Your task to perform on an android device: When is my next meeting? Image 0: 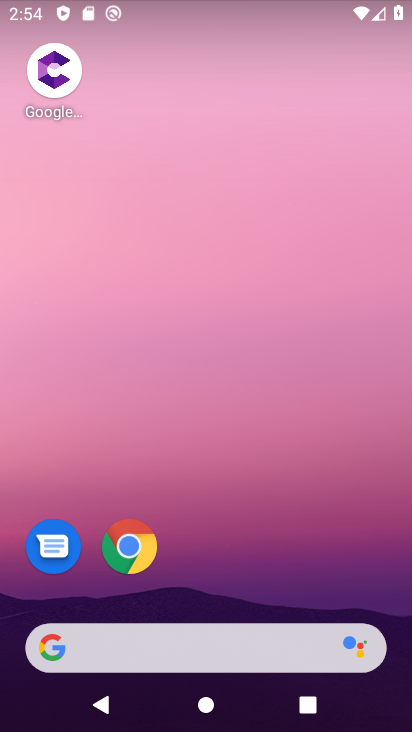
Step 0: drag from (189, 577) to (250, 79)
Your task to perform on an android device: When is my next meeting? Image 1: 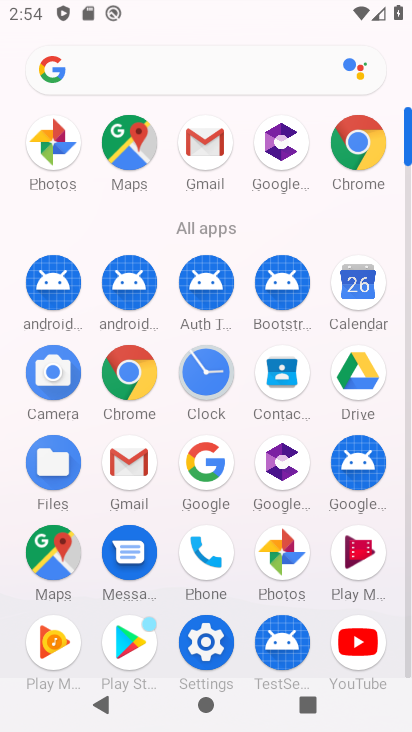
Step 1: click (357, 283)
Your task to perform on an android device: When is my next meeting? Image 2: 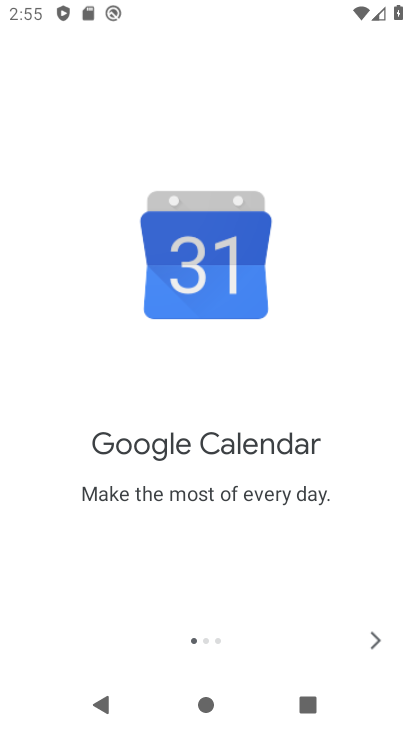
Step 2: click (376, 644)
Your task to perform on an android device: When is my next meeting? Image 3: 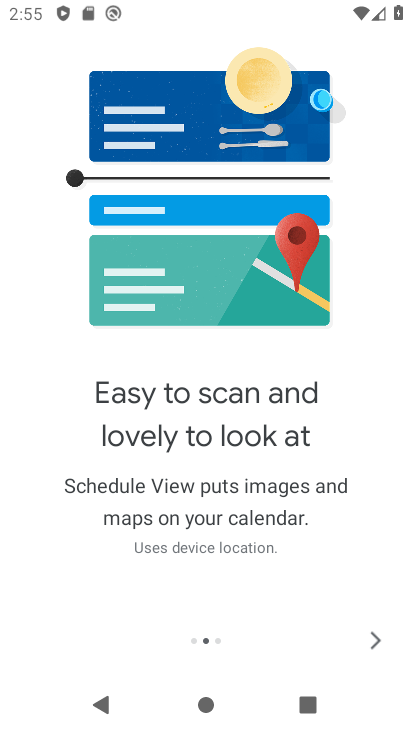
Step 3: click (376, 643)
Your task to perform on an android device: When is my next meeting? Image 4: 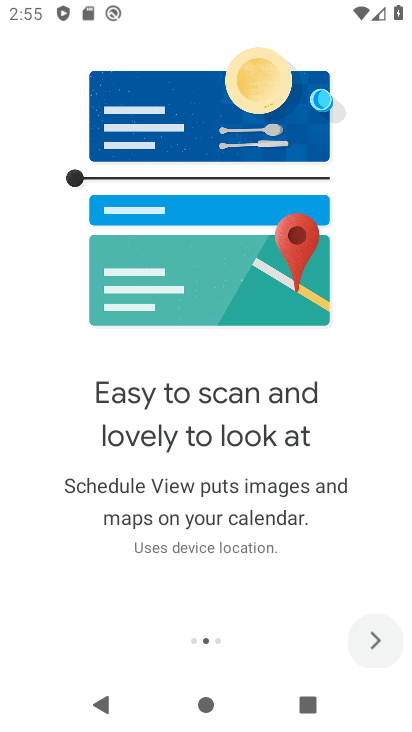
Step 4: click (376, 642)
Your task to perform on an android device: When is my next meeting? Image 5: 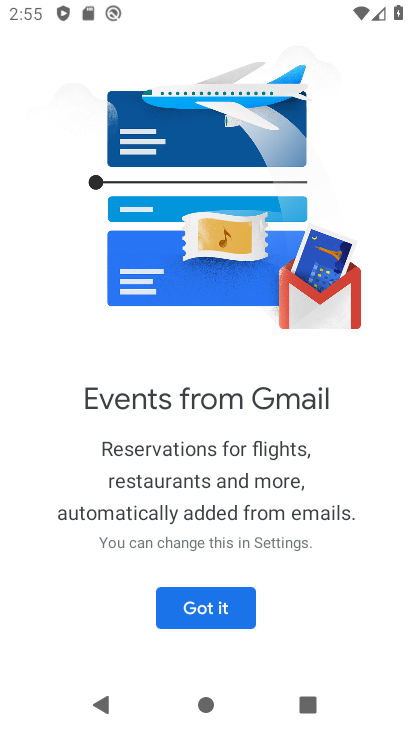
Step 5: click (171, 607)
Your task to perform on an android device: When is my next meeting? Image 6: 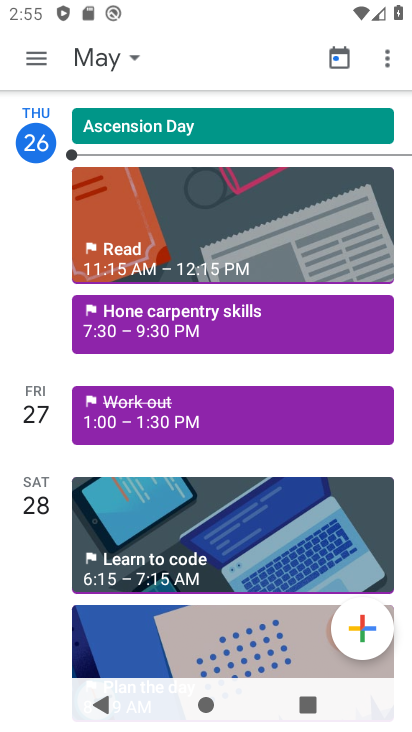
Step 6: task complete